Your task to perform on an android device: Find coffee shops on Maps Image 0: 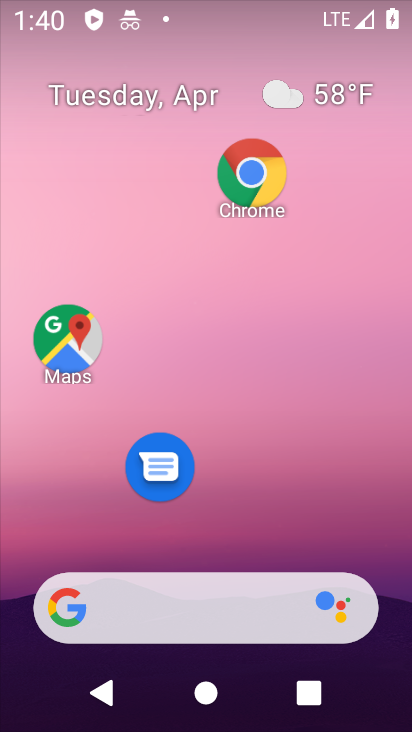
Step 0: drag from (212, 505) to (152, 38)
Your task to perform on an android device: Find coffee shops on Maps Image 1: 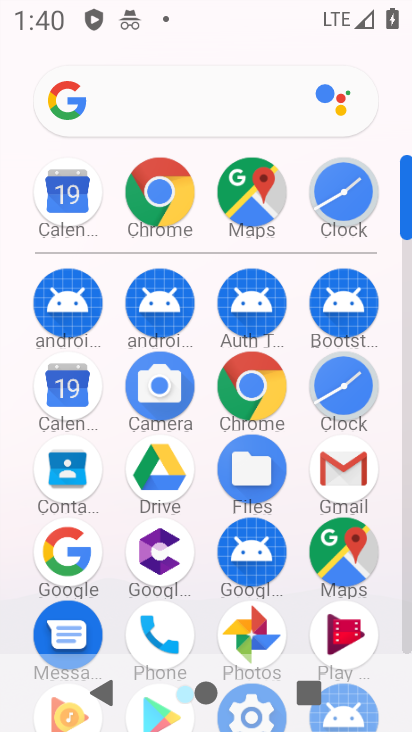
Step 1: click (241, 617)
Your task to perform on an android device: Find coffee shops on Maps Image 2: 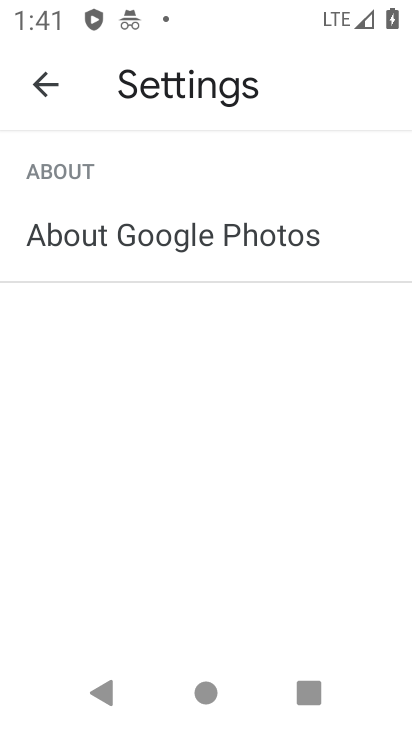
Step 2: drag from (152, 601) to (389, 190)
Your task to perform on an android device: Find coffee shops on Maps Image 3: 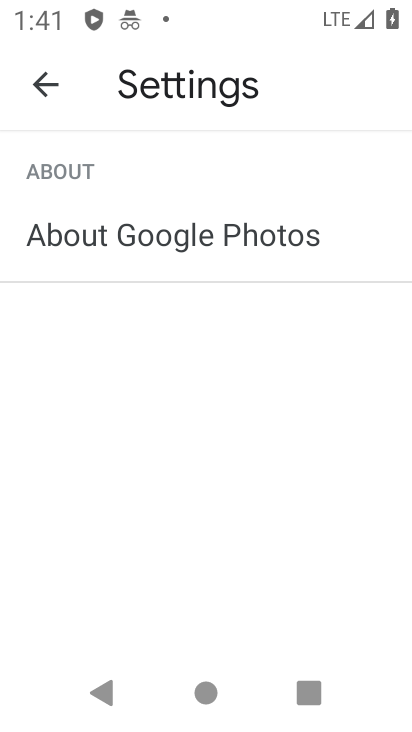
Step 3: press home button
Your task to perform on an android device: Find coffee shops on Maps Image 4: 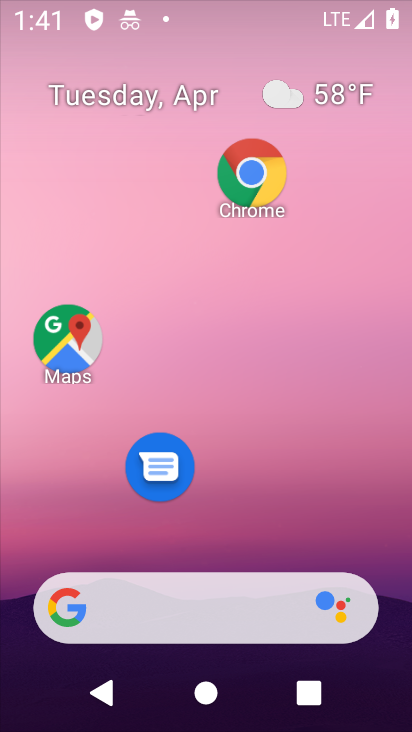
Step 4: drag from (276, 650) to (301, 75)
Your task to perform on an android device: Find coffee shops on Maps Image 5: 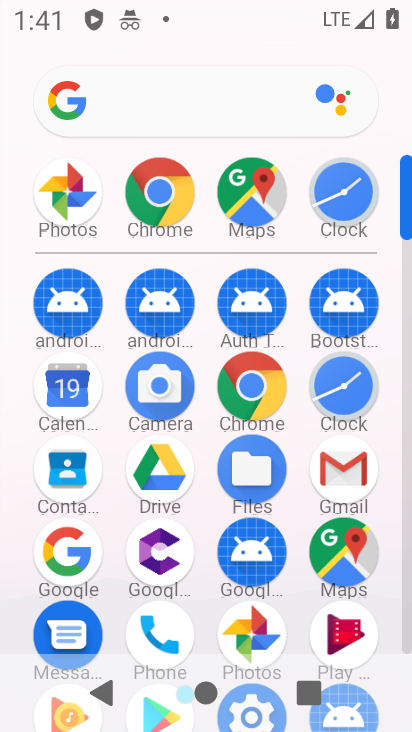
Step 5: drag from (174, 593) to (225, 239)
Your task to perform on an android device: Find coffee shops on Maps Image 6: 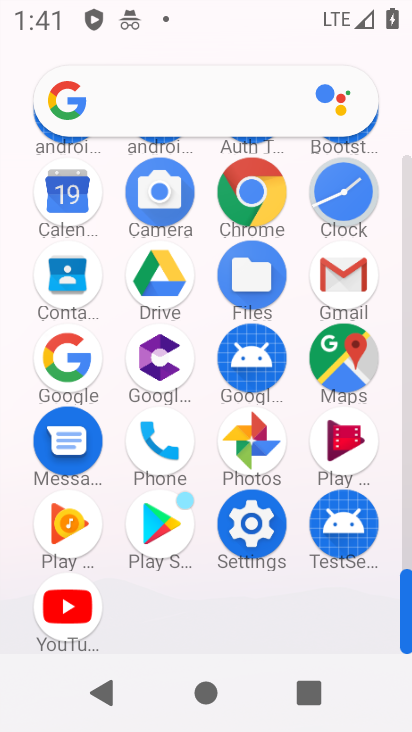
Step 6: drag from (191, 351) to (226, 621)
Your task to perform on an android device: Find coffee shops on Maps Image 7: 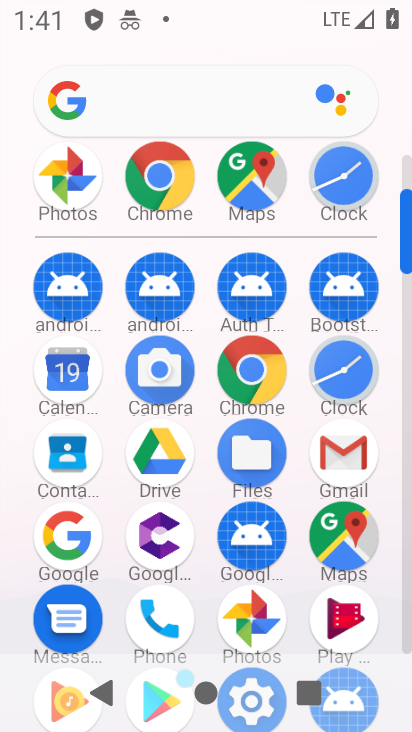
Step 7: click (355, 546)
Your task to perform on an android device: Find coffee shops on Maps Image 8: 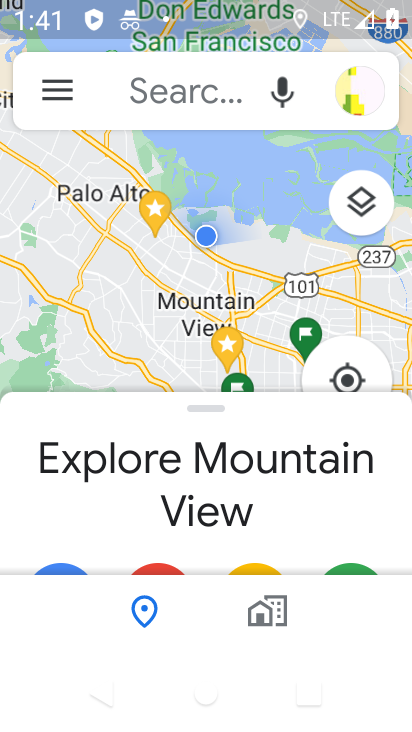
Step 8: click (207, 83)
Your task to perform on an android device: Find coffee shops on Maps Image 9: 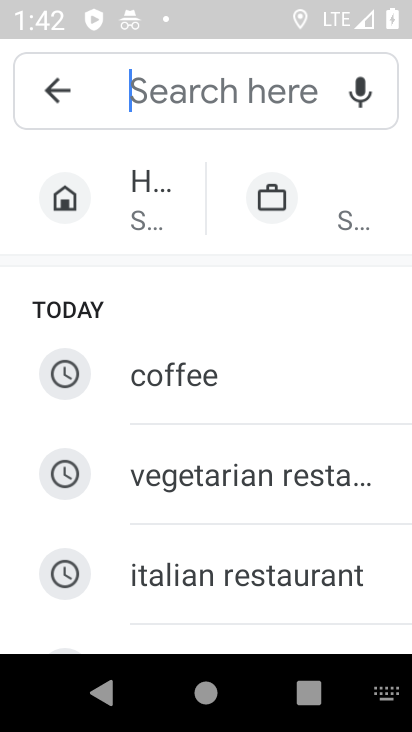
Step 9: type "coffee shop"
Your task to perform on an android device: Find coffee shops on Maps Image 10: 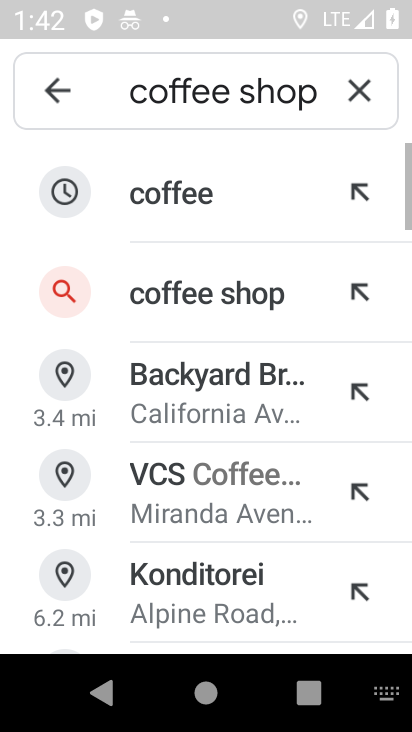
Step 10: click (207, 279)
Your task to perform on an android device: Find coffee shops on Maps Image 11: 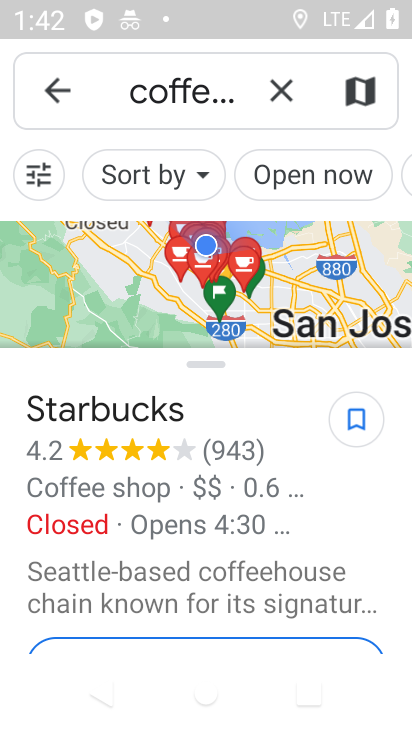
Step 11: task complete